Your task to perform on an android device: Open settings Image 0: 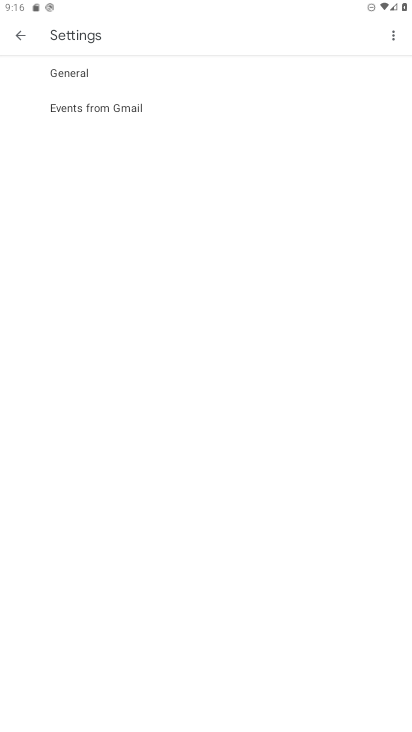
Step 0: press home button
Your task to perform on an android device: Open settings Image 1: 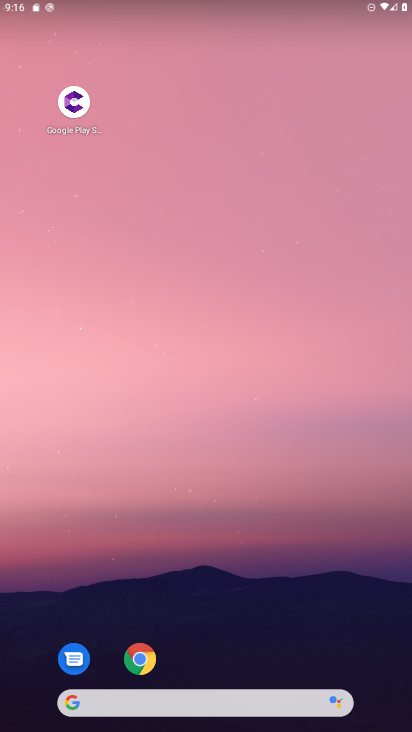
Step 1: drag from (251, 641) to (272, 51)
Your task to perform on an android device: Open settings Image 2: 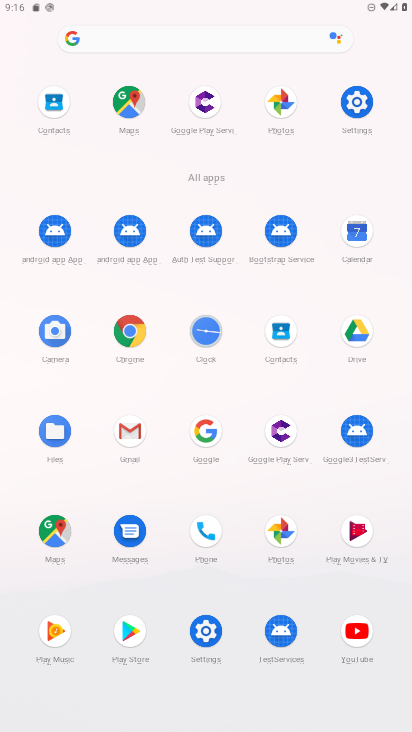
Step 2: click (360, 103)
Your task to perform on an android device: Open settings Image 3: 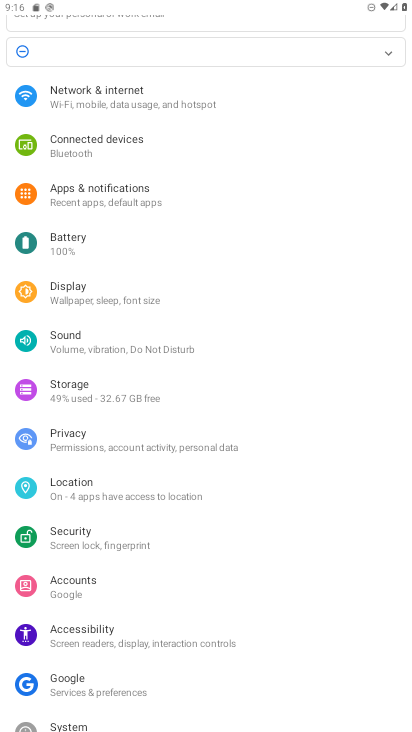
Step 3: task complete